Your task to perform on an android device: Search for hotels in Washington DC Image 0: 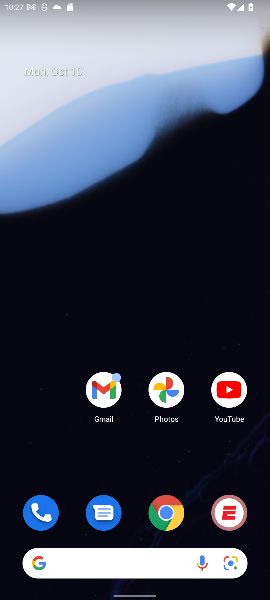
Step 0: drag from (129, 377) to (129, 158)
Your task to perform on an android device: Search for hotels in Washington DC Image 1: 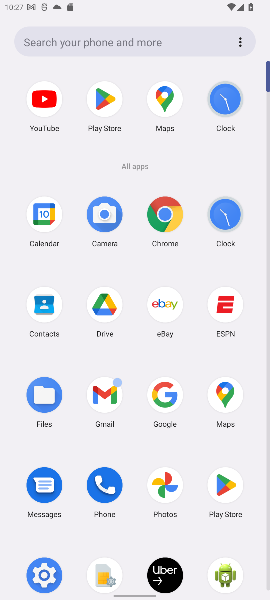
Step 1: click (164, 394)
Your task to perform on an android device: Search for hotels in Washington DC Image 2: 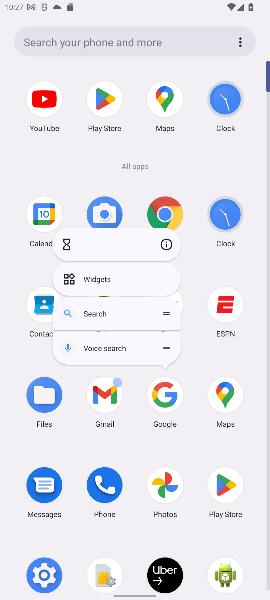
Step 2: click (164, 394)
Your task to perform on an android device: Search for hotels in Washington DC Image 3: 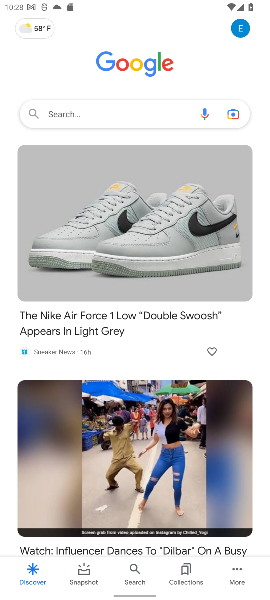
Step 3: click (106, 113)
Your task to perform on an android device: Search for hotels in Washington DC Image 4: 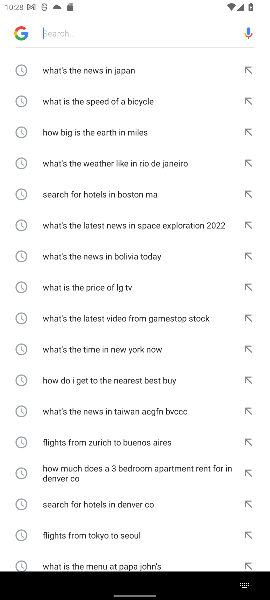
Step 4: type "hotels in Washington DC"
Your task to perform on an android device: Search for hotels in Washington DC Image 5: 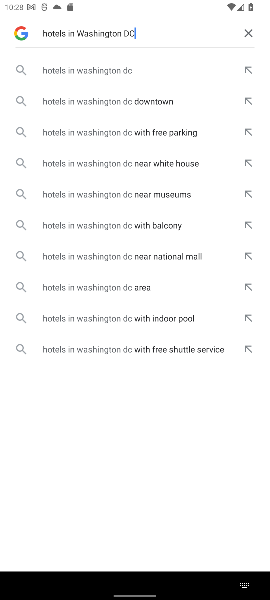
Step 5: click (91, 70)
Your task to perform on an android device: Search for hotels in Washington DC Image 6: 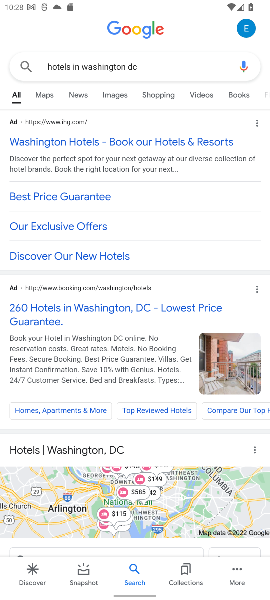
Step 6: drag from (142, 246) to (135, 140)
Your task to perform on an android device: Search for hotels in Washington DC Image 7: 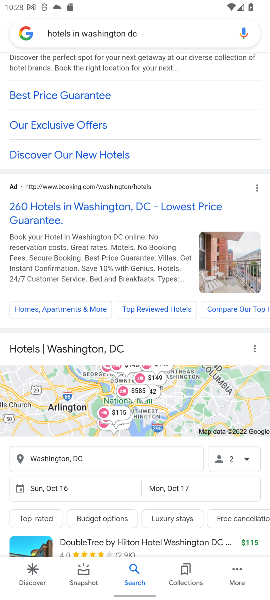
Step 7: click (96, 134)
Your task to perform on an android device: Search for hotels in Washington DC Image 8: 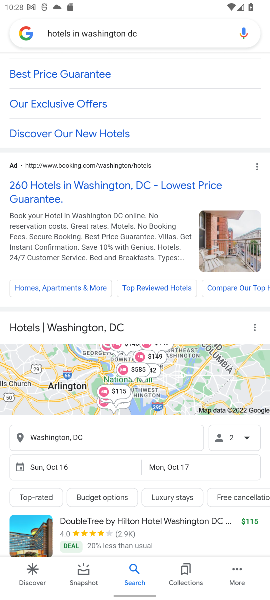
Step 8: drag from (127, 395) to (126, 322)
Your task to perform on an android device: Search for hotels in Washington DC Image 9: 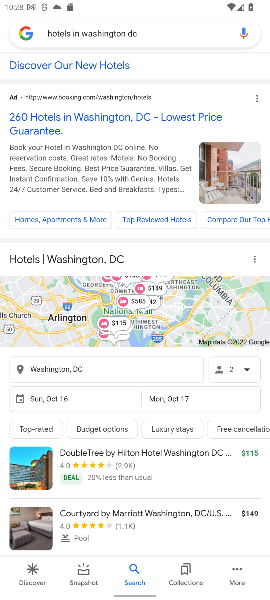
Step 9: drag from (146, 439) to (99, 152)
Your task to perform on an android device: Search for hotels in Washington DC Image 10: 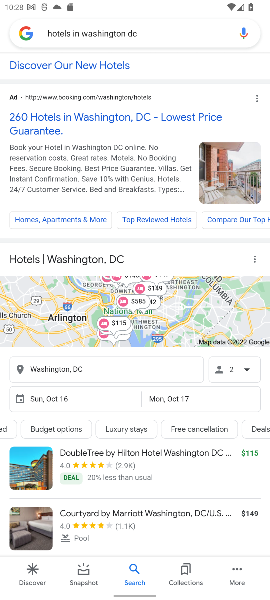
Step 10: drag from (95, 360) to (40, 60)
Your task to perform on an android device: Search for hotels in Washington DC Image 11: 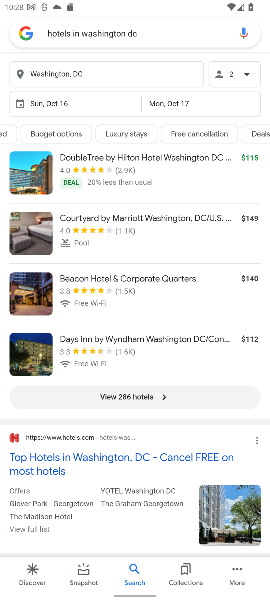
Step 11: click (136, 395)
Your task to perform on an android device: Search for hotels in Washington DC Image 12: 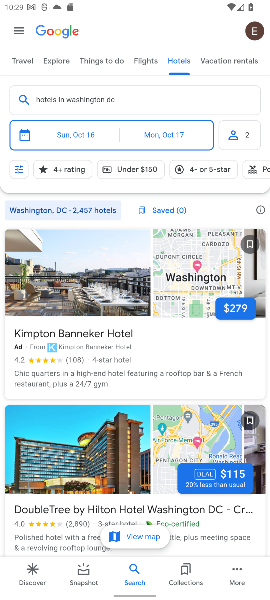
Step 12: task complete